Your task to perform on an android device: change the clock display to analog Image 0: 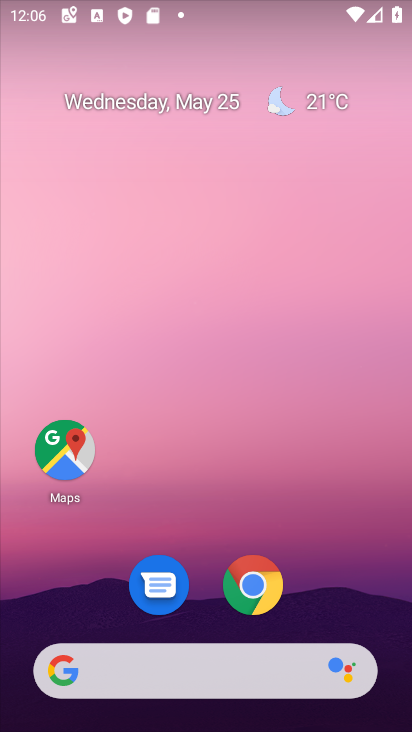
Step 0: drag from (204, 502) to (253, 39)
Your task to perform on an android device: change the clock display to analog Image 1: 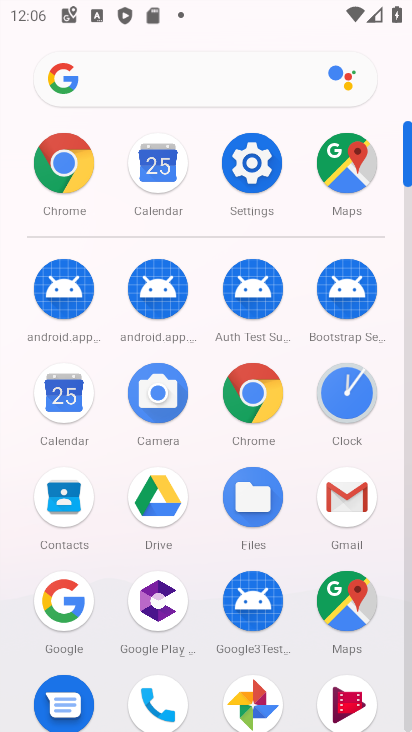
Step 1: click (341, 393)
Your task to perform on an android device: change the clock display to analog Image 2: 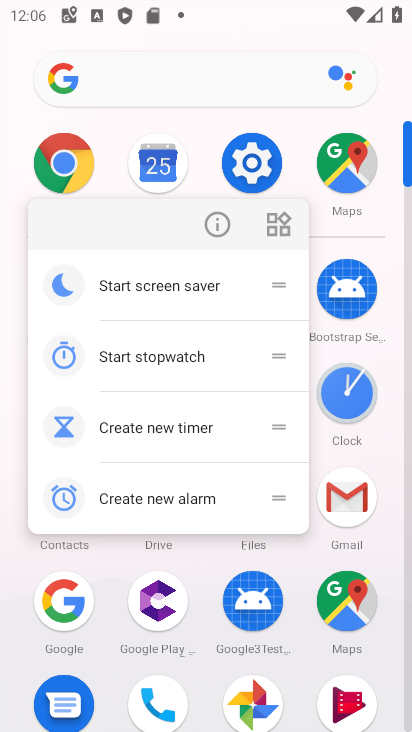
Step 2: click (341, 392)
Your task to perform on an android device: change the clock display to analog Image 3: 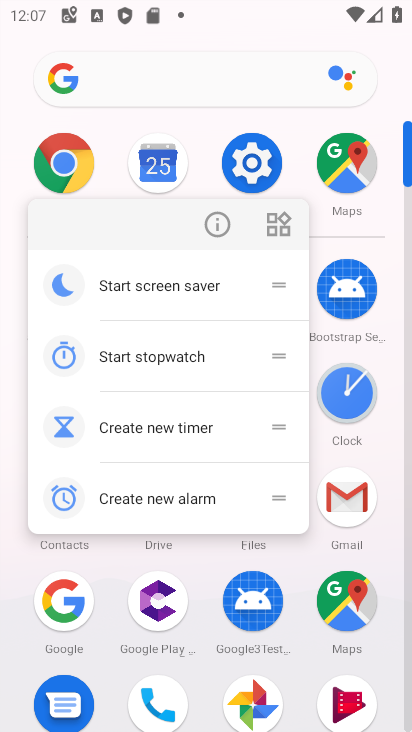
Step 3: click (341, 392)
Your task to perform on an android device: change the clock display to analog Image 4: 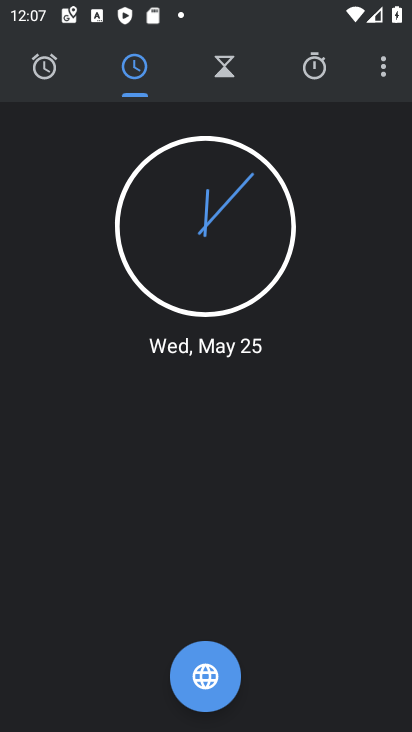
Step 4: task complete